Your task to perform on an android device: Open the calendar app, open the side menu, and click the "Day" option Image 0: 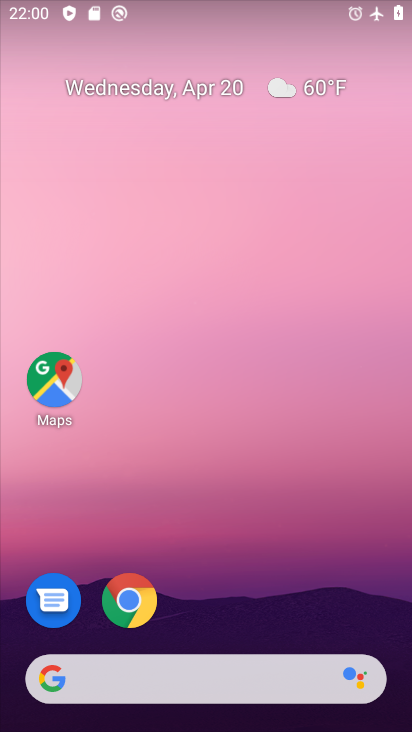
Step 0: drag from (211, 633) to (370, 2)
Your task to perform on an android device: Open the calendar app, open the side menu, and click the "Day" option Image 1: 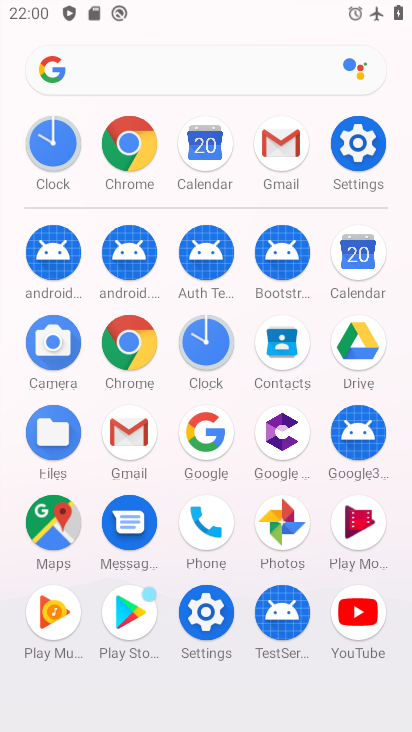
Step 1: click (352, 264)
Your task to perform on an android device: Open the calendar app, open the side menu, and click the "Day" option Image 2: 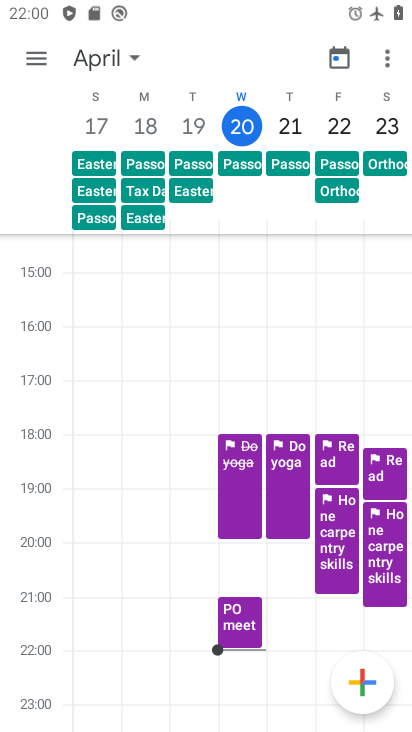
Step 2: click (37, 59)
Your task to perform on an android device: Open the calendar app, open the side menu, and click the "Day" option Image 3: 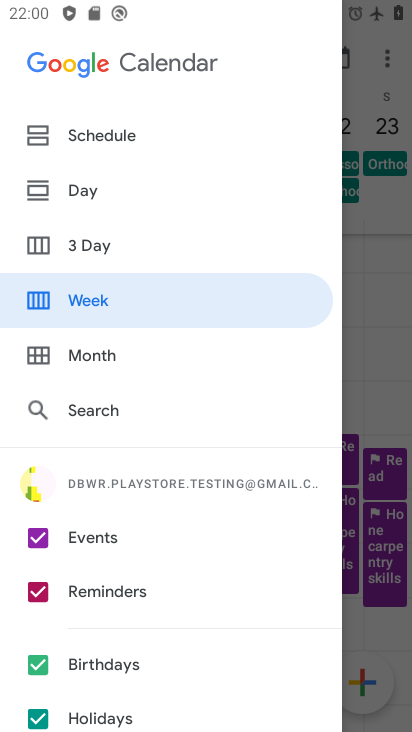
Step 3: click (74, 197)
Your task to perform on an android device: Open the calendar app, open the side menu, and click the "Day" option Image 4: 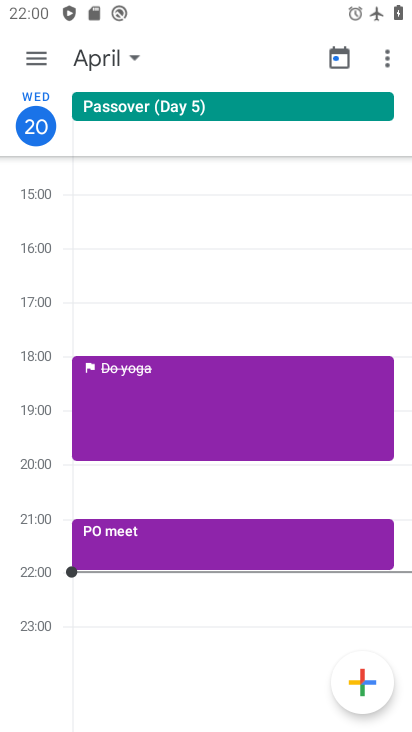
Step 4: task complete